Your task to perform on an android device: turn on bluetooth scan Image 0: 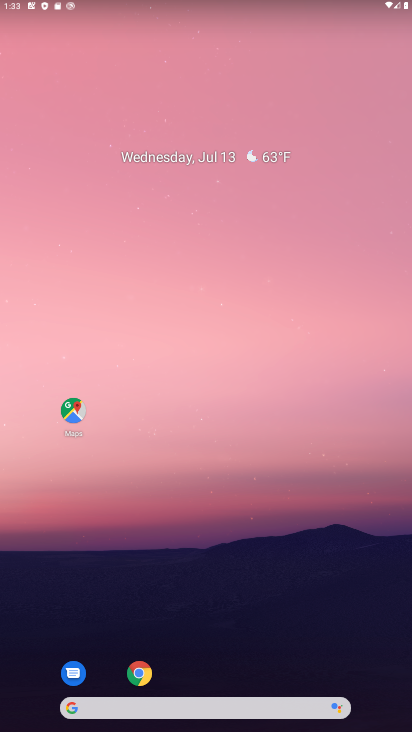
Step 0: drag from (184, 670) to (184, 266)
Your task to perform on an android device: turn on bluetooth scan Image 1: 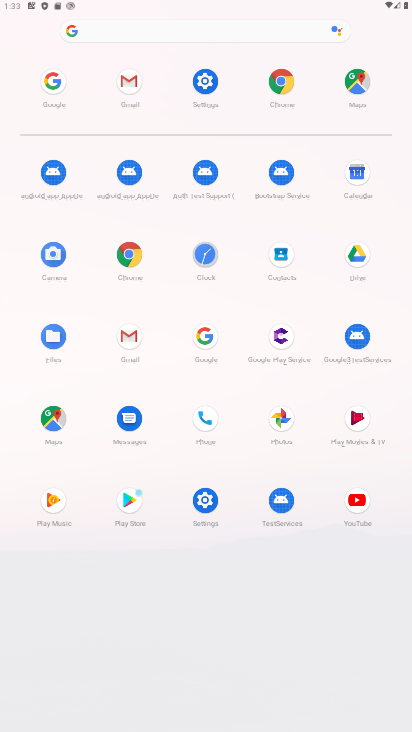
Step 1: click (209, 73)
Your task to perform on an android device: turn on bluetooth scan Image 2: 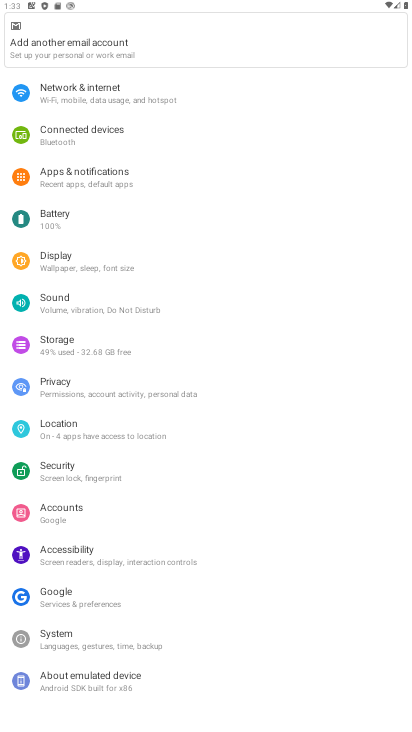
Step 2: drag from (202, 119) to (195, 342)
Your task to perform on an android device: turn on bluetooth scan Image 3: 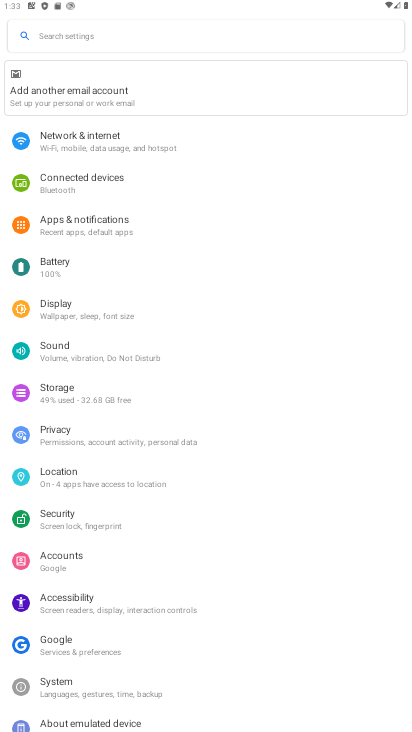
Step 3: click (153, 37)
Your task to perform on an android device: turn on bluetooth scan Image 4: 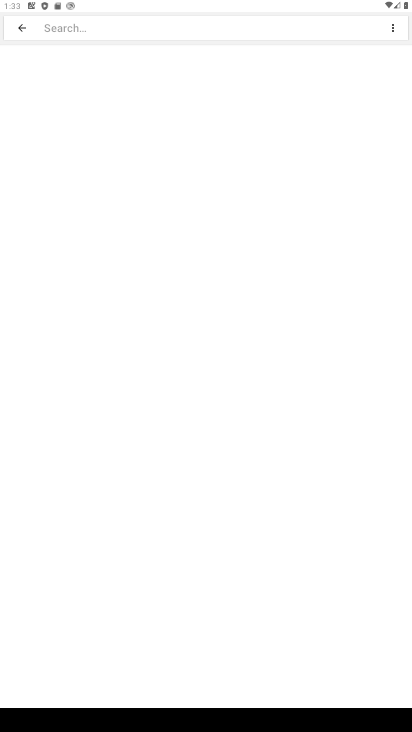
Step 4: type "bluetooth scan "
Your task to perform on an android device: turn on bluetooth scan Image 5: 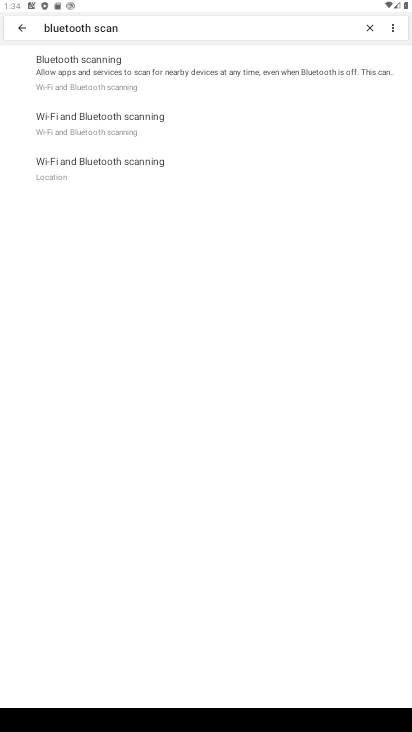
Step 5: click (129, 72)
Your task to perform on an android device: turn on bluetooth scan Image 6: 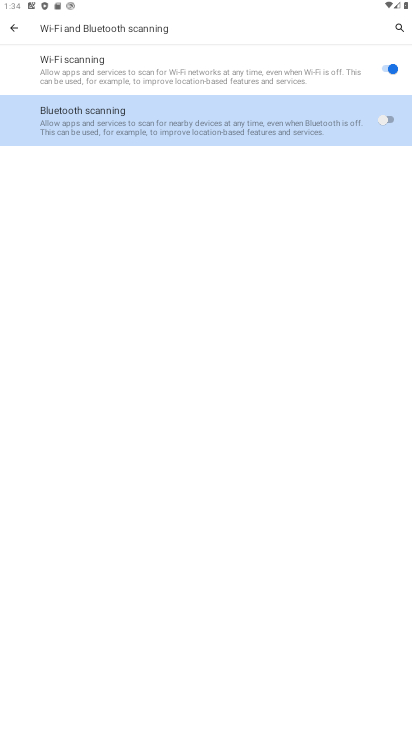
Step 6: click (383, 118)
Your task to perform on an android device: turn on bluetooth scan Image 7: 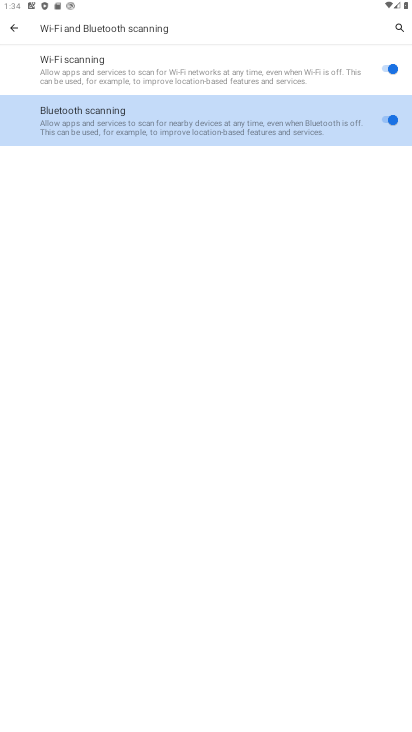
Step 7: task complete